Your task to perform on an android device: turn on showing notifications on the lock screen Image 0: 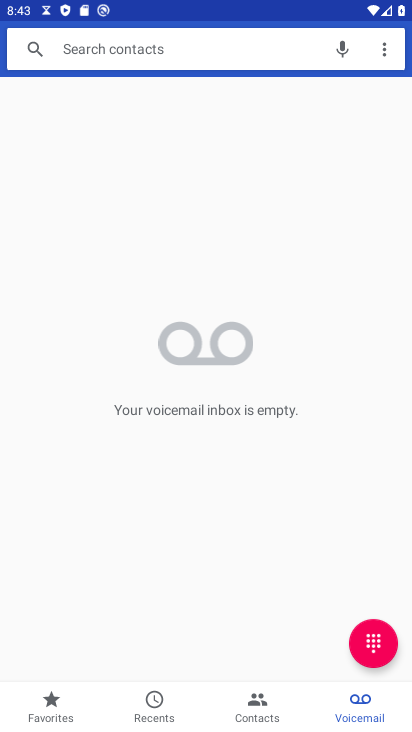
Step 0: press home button
Your task to perform on an android device: turn on showing notifications on the lock screen Image 1: 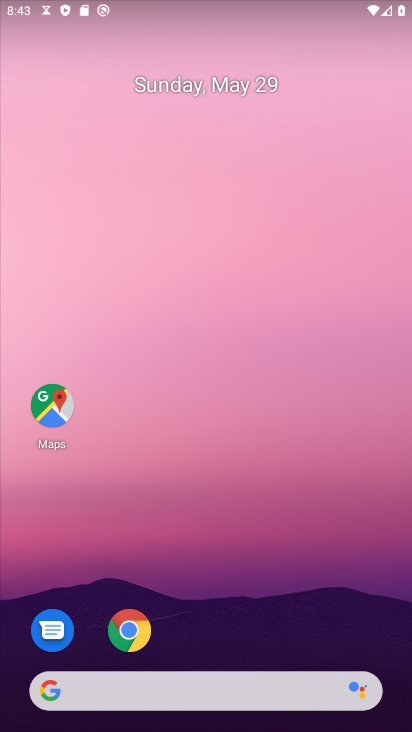
Step 1: drag from (234, 626) to (237, 235)
Your task to perform on an android device: turn on showing notifications on the lock screen Image 2: 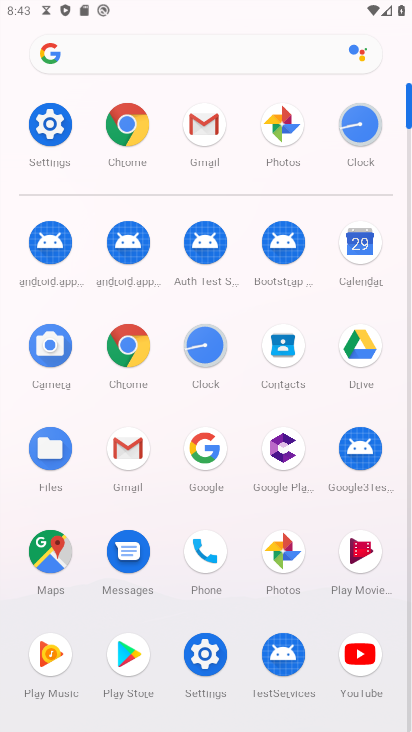
Step 2: click (39, 130)
Your task to perform on an android device: turn on showing notifications on the lock screen Image 3: 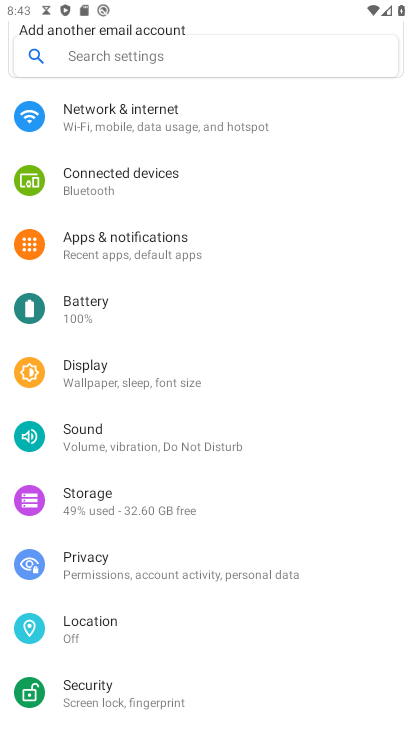
Step 3: click (182, 251)
Your task to perform on an android device: turn on showing notifications on the lock screen Image 4: 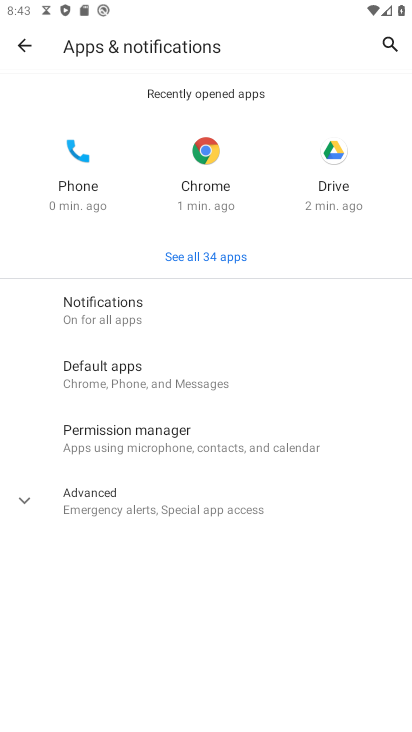
Step 4: click (123, 308)
Your task to perform on an android device: turn on showing notifications on the lock screen Image 5: 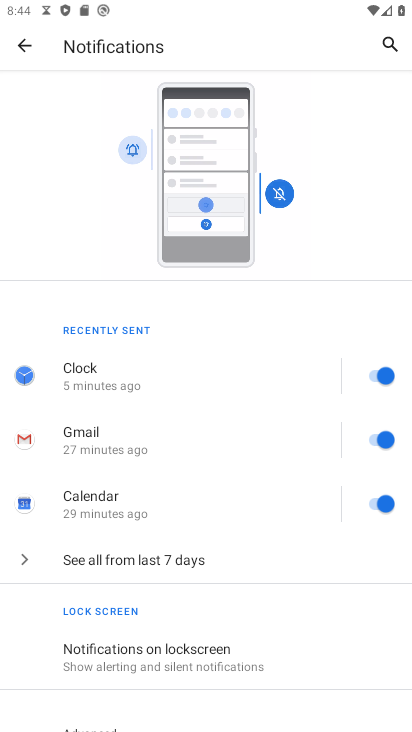
Step 5: click (154, 664)
Your task to perform on an android device: turn on showing notifications on the lock screen Image 6: 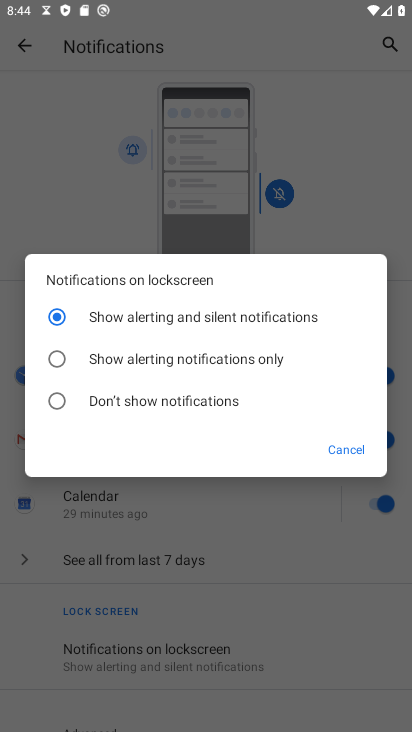
Step 6: click (97, 325)
Your task to perform on an android device: turn on showing notifications on the lock screen Image 7: 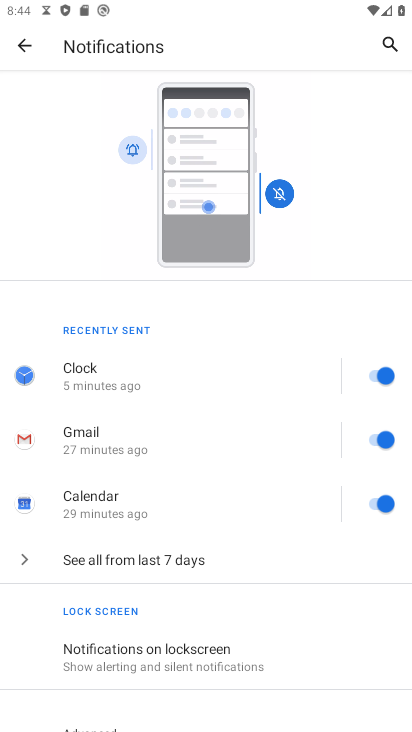
Step 7: task complete